Your task to perform on an android device: stop showing notifications on the lock screen Image 0: 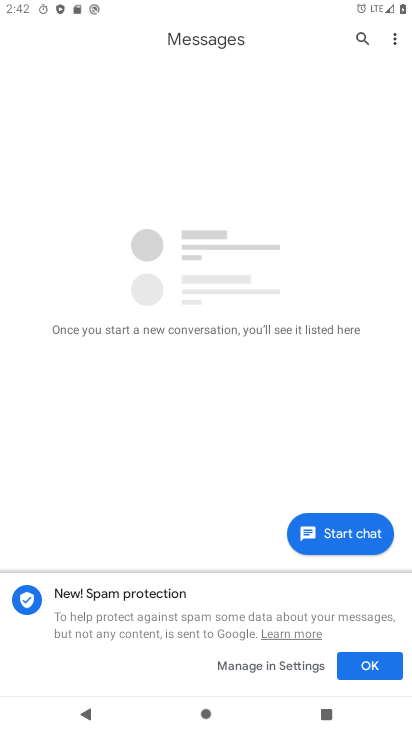
Step 0: press home button
Your task to perform on an android device: stop showing notifications on the lock screen Image 1: 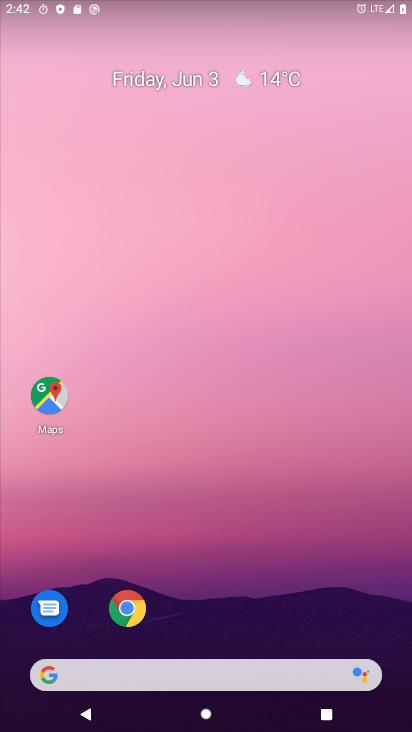
Step 1: drag from (203, 667) to (240, 185)
Your task to perform on an android device: stop showing notifications on the lock screen Image 2: 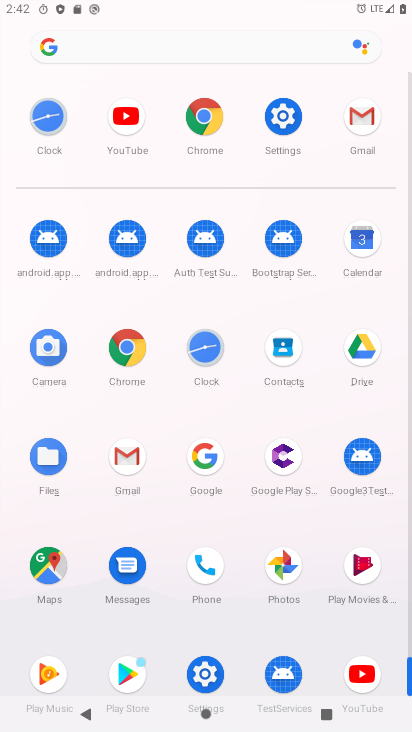
Step 2: click (287, 127)
Your task to perform on an android device: stop showing notifications on the lock screen Image 3: 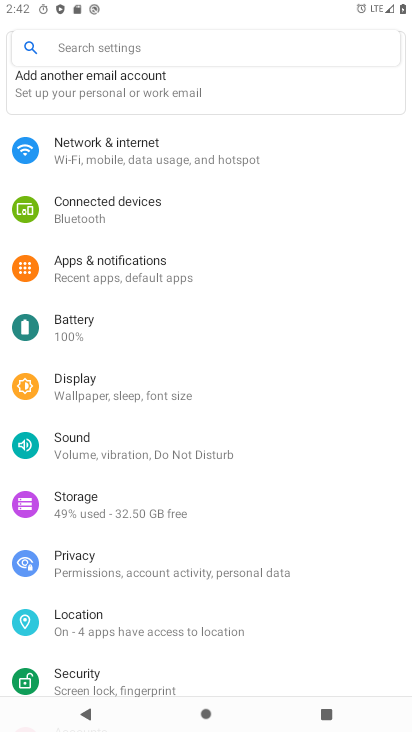
Step 3: click (131, 287)
Your task to perform on an android device: stop showing notifications on the lock screen Image 4: 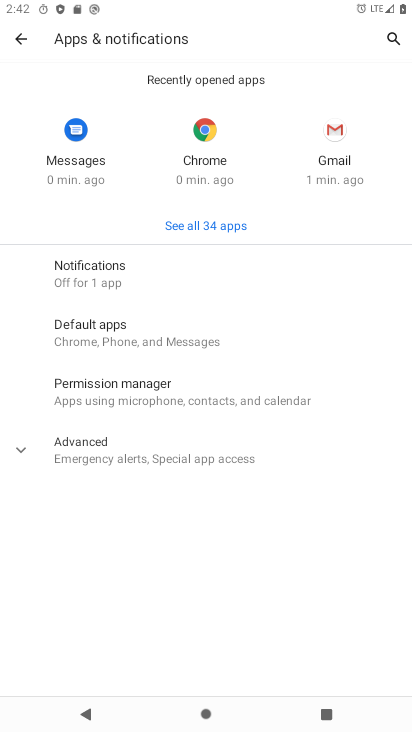
Step 4: click (138, 273)
Your task to perform on an android device: stop showing notifications on the lock screen Image 5: 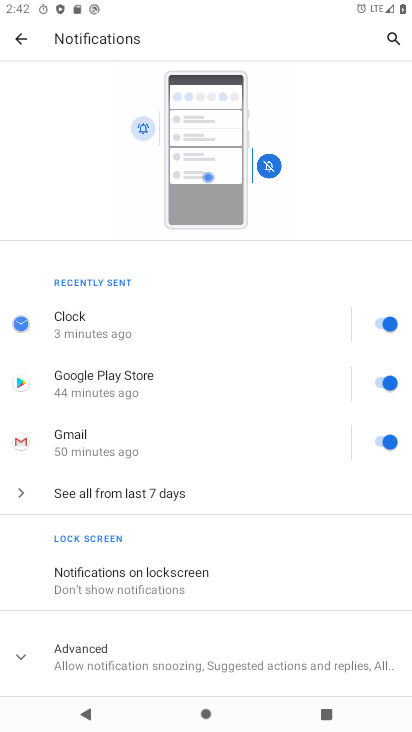
Step 5: click (227, 592)
Your task to perform on an android device: stop showing notifications on the lock screen Image 6: 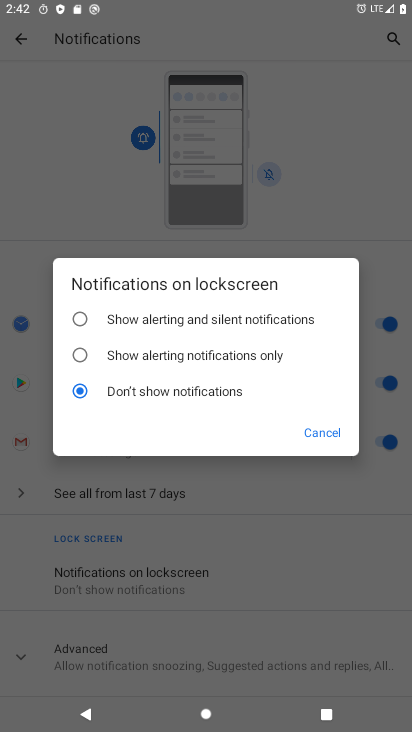
Step 6: click (132, 392)
Your task to perform on an android device: stop showing notifications on the lock screen Image 7: 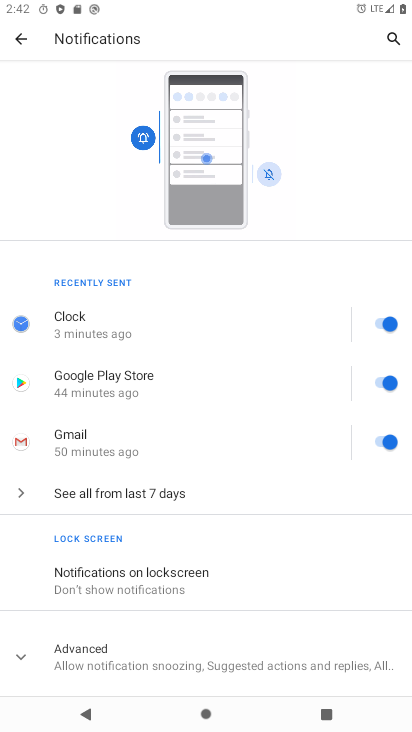
Step 7: task complete